Your task to perform on an android device: View the shopping cart on amazon. Search for usb-a to usb-b on amazon, select the first entry, add it to the cart, then select checkout. Image 0: 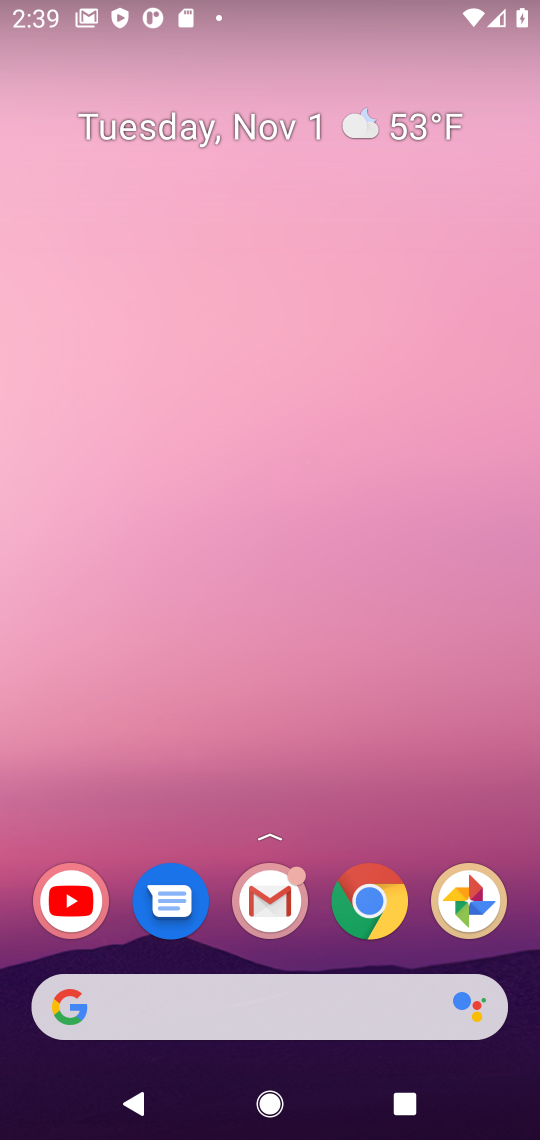
Step 0: click (374, 906)
Your task to perform on an android device: View the shopping cart on amazon. Search for usb-a to usb-b on amazon, select the first entry, add it to the cart, then select checkout. Image 1: 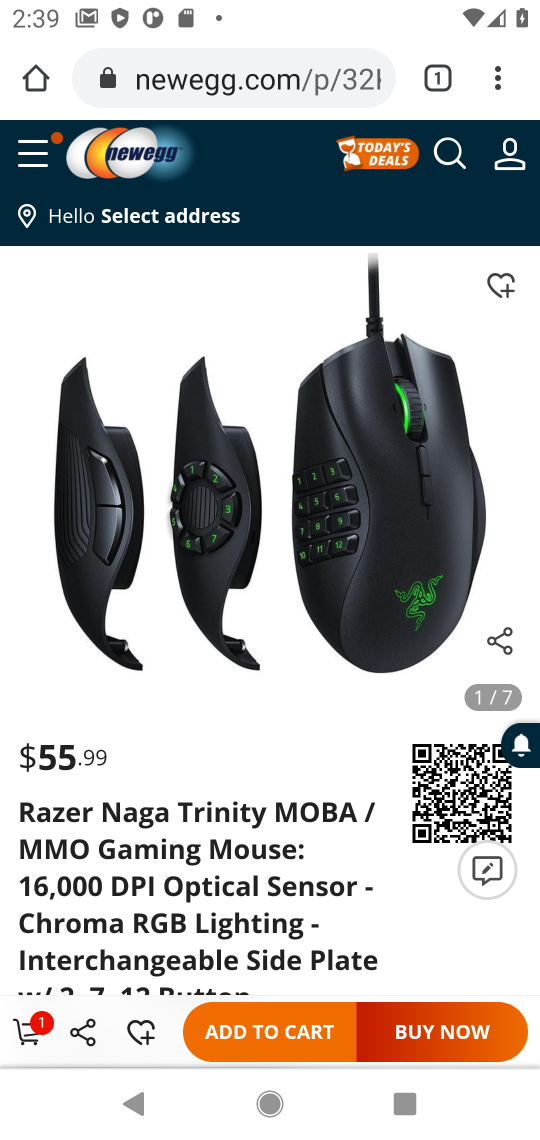
Step 1: click (291, 76)
Your task to perform on an android device: View the shopping cart on amazon. Search for usb-a to usb-b on amazon, select the first entry, add it to the cart, then select checkout. Image 2: 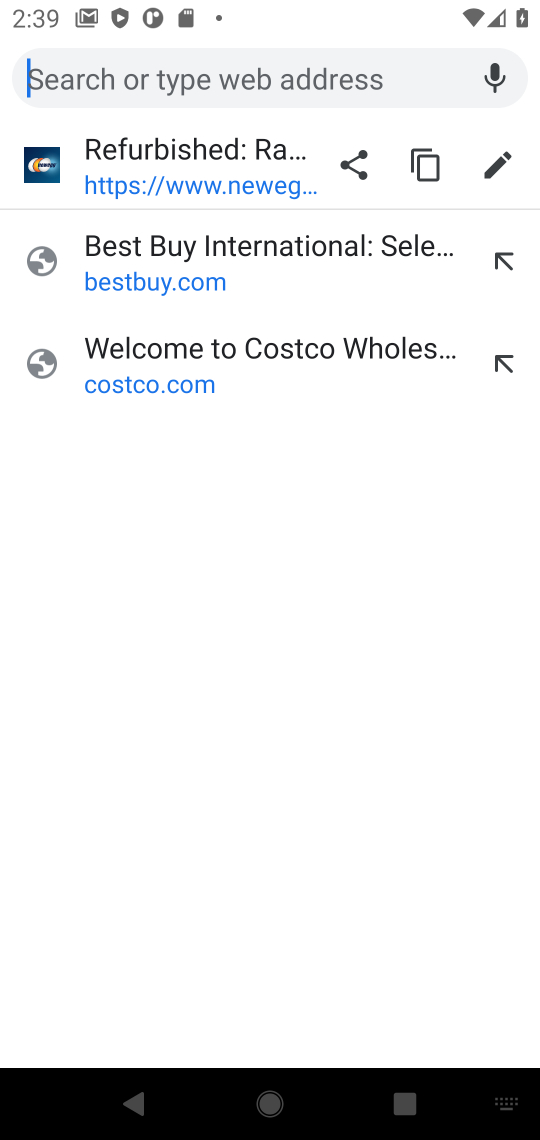
Step 2: type "amazon"
Your task to perform on an android device: View the shopping cart on amazon. Search for usb-a to usb-b on amazon, select the first entry, add it to the cart, then select checkout. Image 3: 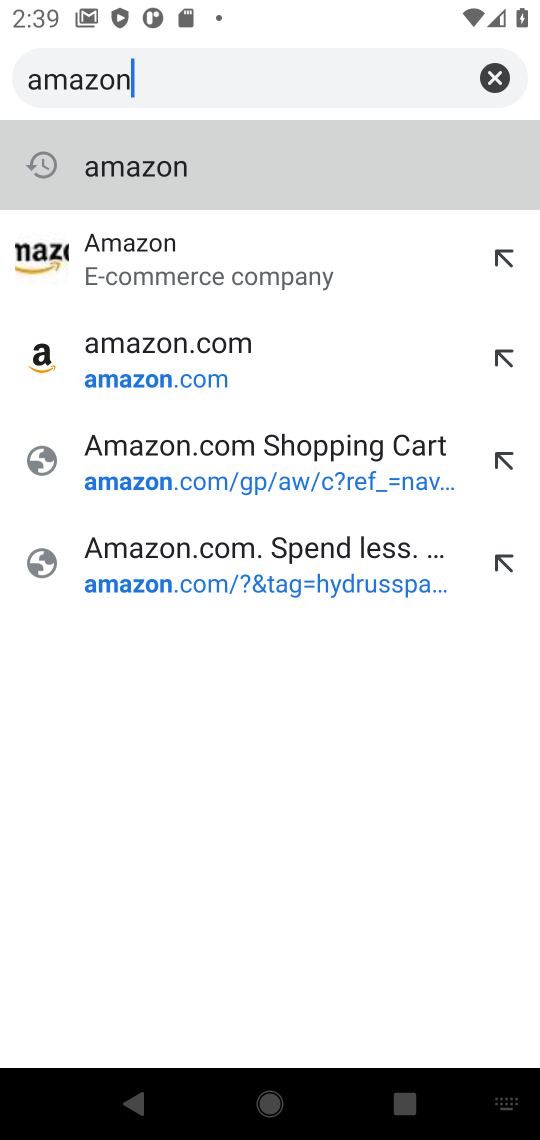
Step 3: click (134, 251)
Your task to perform on an android device: View the shopping cart on amazon. Search for usb-a to usb-b on amazon, select the first entry, add it to the cart, then select checkout. Image 4: 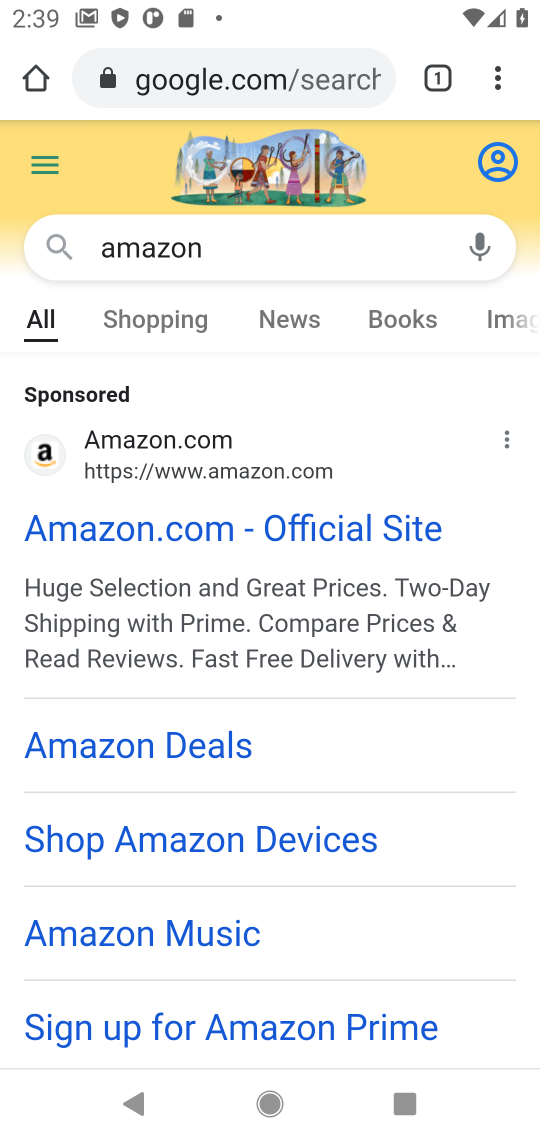
Step 4: click (145, 442)
Your task to perform on an android device: View the shopping cart on amazon. Search for usb-a to usb-b on amazon, select the first entry, add it to the cart, then select checkout. Image 5: 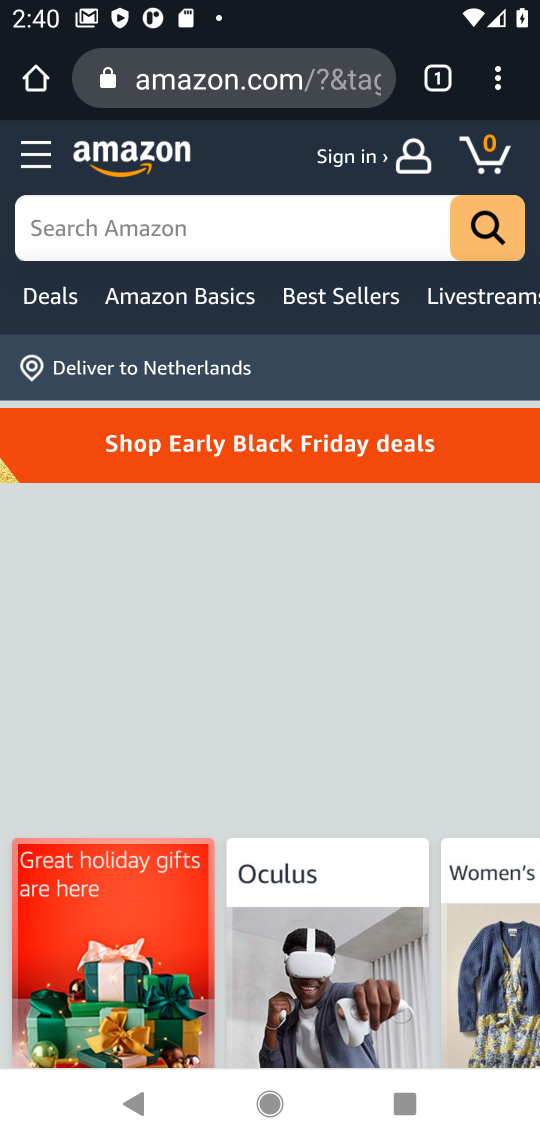
Step 5: click (327, 236)
Your task to perform on an android device: View the shopping cart on amazon. Search for usb-a to usb-b on amazon, select the first entry, add it to the cart, then select checkout. Image 6: 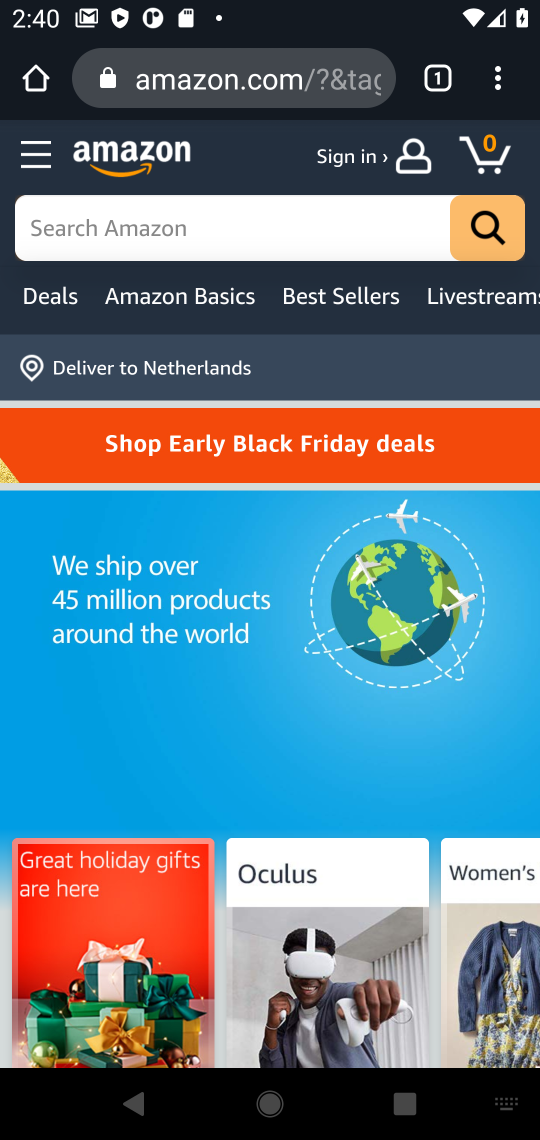
Step 6: type "usb-a to usb-b"
Your task to perform on an android device: View the shopping cart on amazon. Search for usb-a to usb-b on amazon, select the first entry, add it to the cart, then select checkout. Image 7: 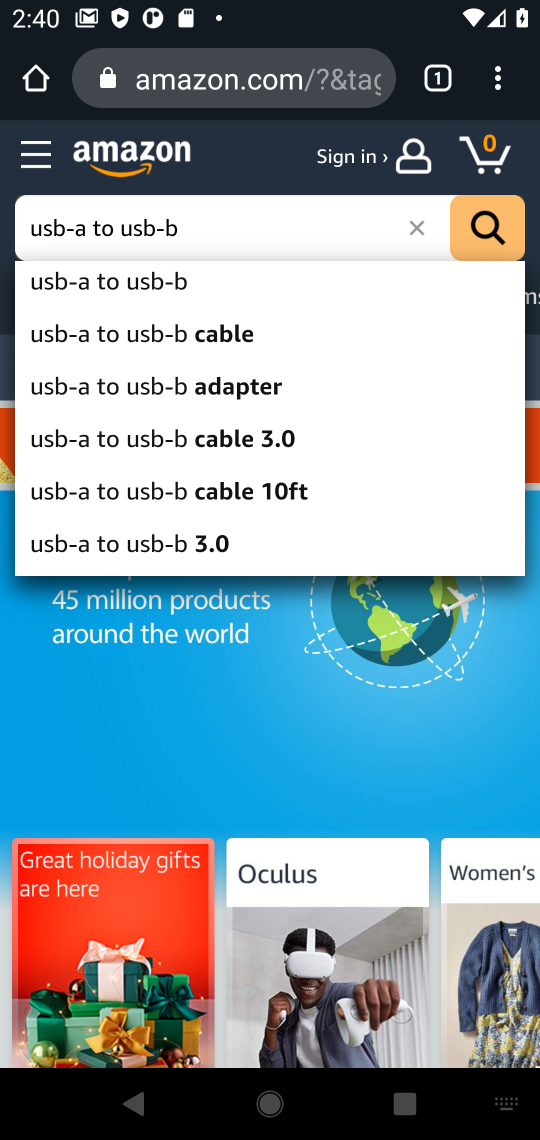
Step 7: click (163, 279)
Your task to perform on an android device: View the shopping cart on amazon. Search for usb-a to usb-b on amazon, select the first entry, add it to the cart, then select checkout. Image 8: 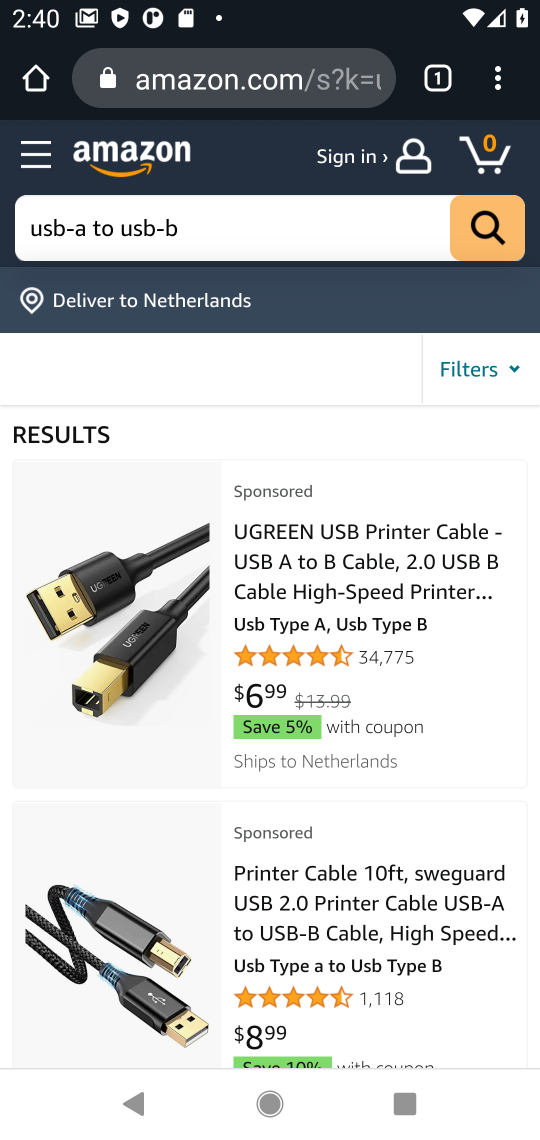
Step 8: click (255, 553)
Your task to perform on an android device: View the shopping cart on amazon. Search for usb-a to usb-b on amazon, select the first entry, add it to the cart, then select checkout. Image 9: 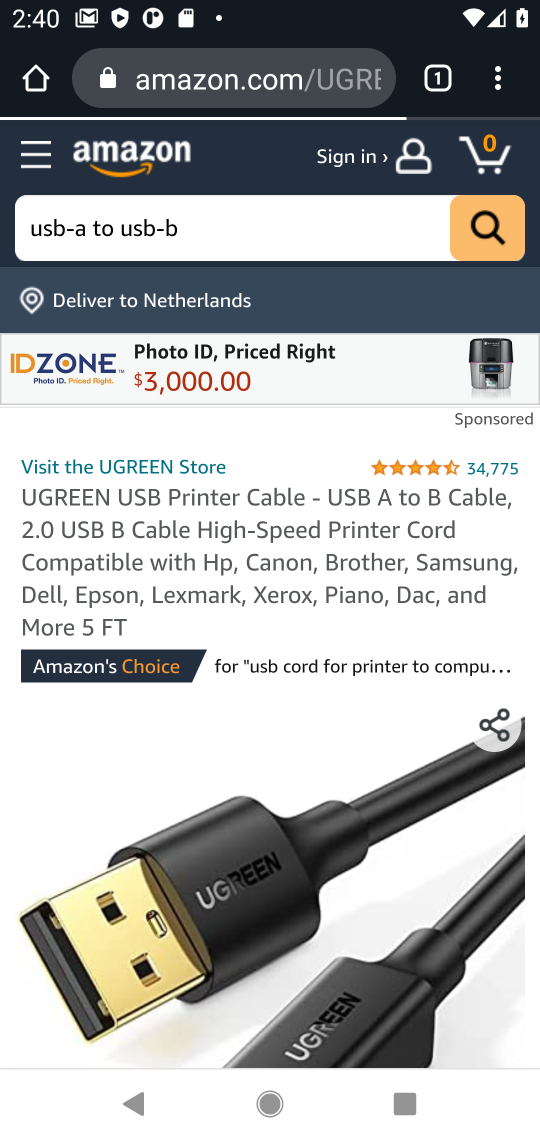
Step 9: drag from (376, 666) to (326, 435)
Your task to perform on an android device: View the shopping cart on amazon. Search for usb-a to usb-b on amazon, select the first entry, add it to the cart, then select checkout. Image 10: 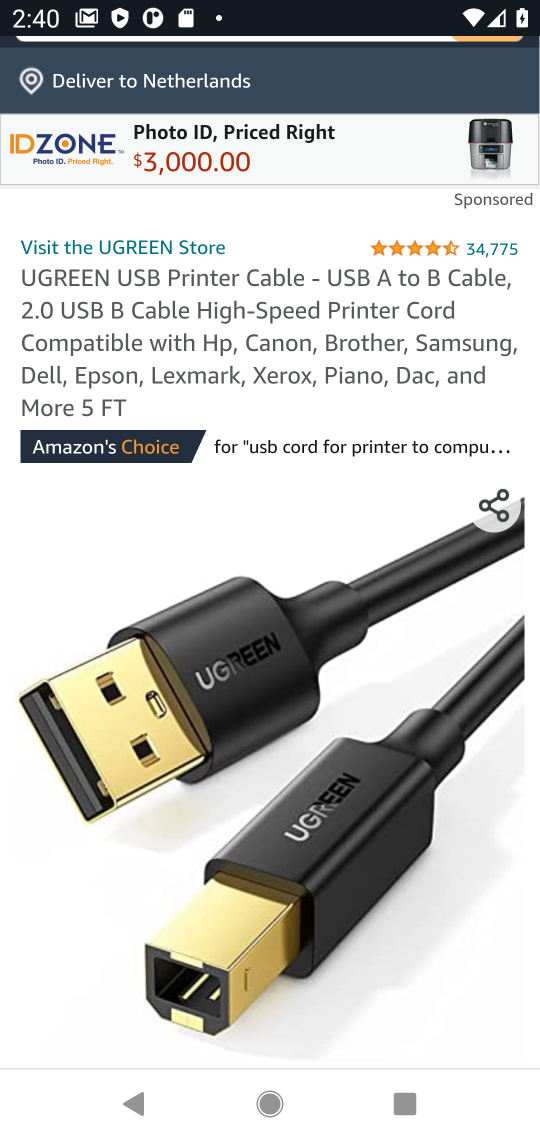
Step 10: drag from (318, 1003) to (138, 233)
Your task to perform on an android device: View the shopping cart on amazon. Search for usb-a to usb-b on amazon, select the first entry, add it to the cart, then select checkout. Image 11: 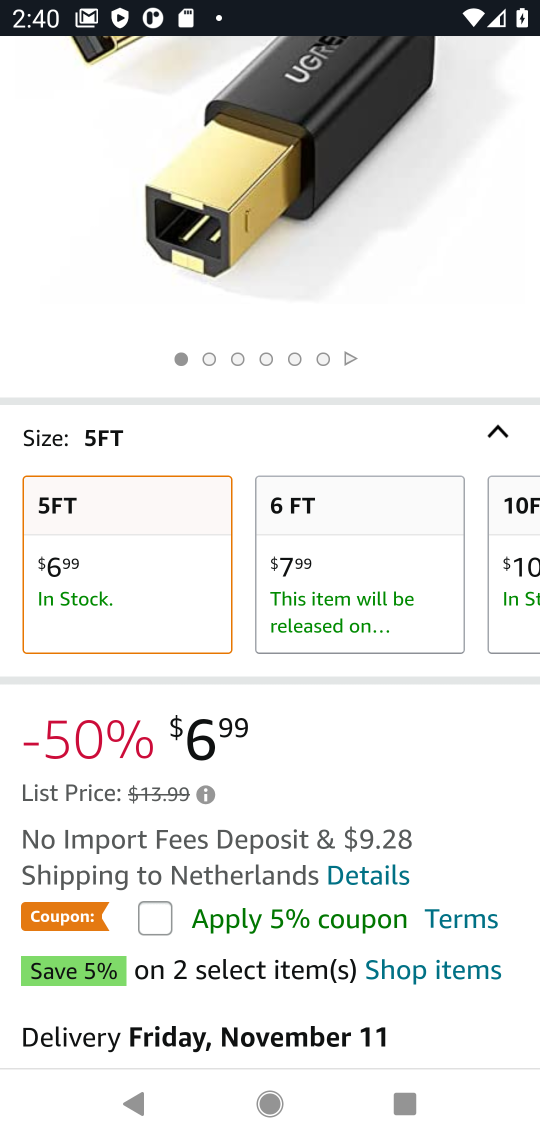
Step 11: drag from (449, 886) to (349, 510)
Your task to perform on an android device: View the shopping cart on amazon. Search for usb-a to usb-b on amazon, select the first entry, add it to the cart, then select checkout. Image 12: 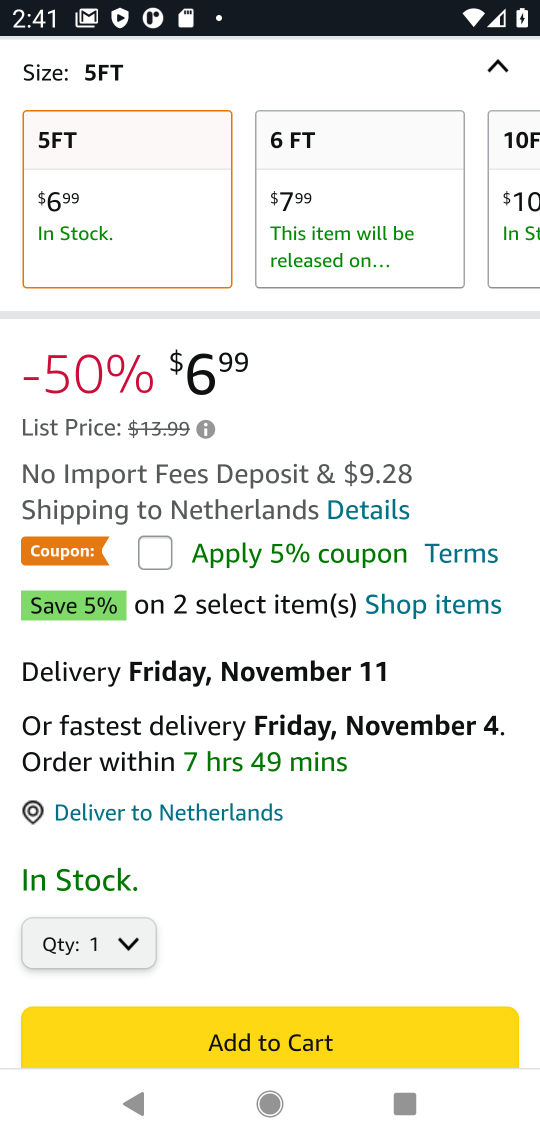
Step 12: drag from (310, 903) to (262, 712)
Your task to perform on an android device: View the shopping cart on amazon. Search for usb-a to usb-b on amazon, select the first entry, add it to the cart, then select checkout. Image 13: 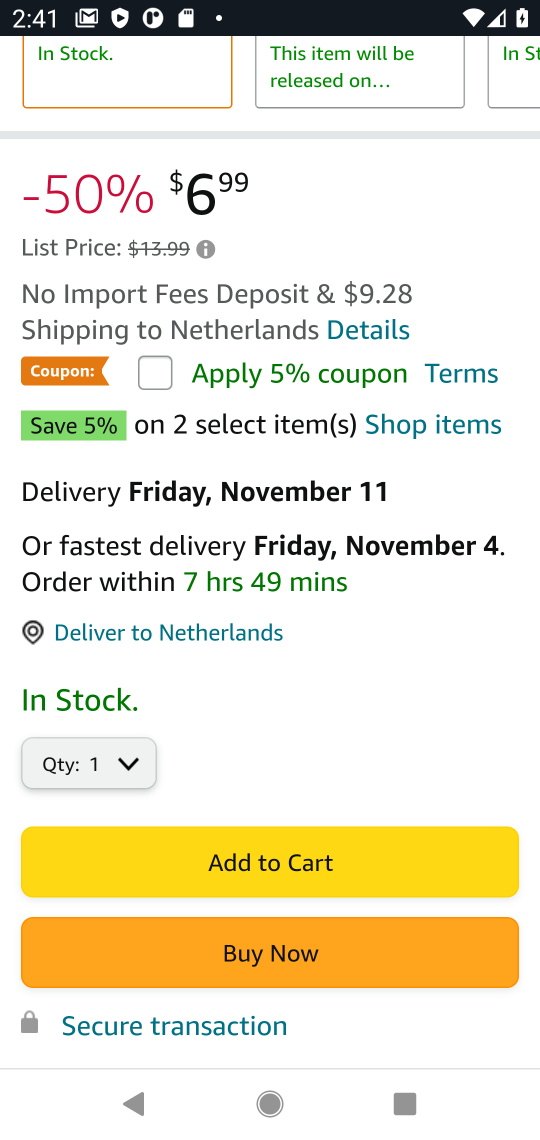
Step 13: click (272, 857)
Your task to perform on an android device: View the shopping cart on amazon. Search for usb-a to usb-b on amazon, select the first entry, add it to the cart, then select checkout. Image 14: 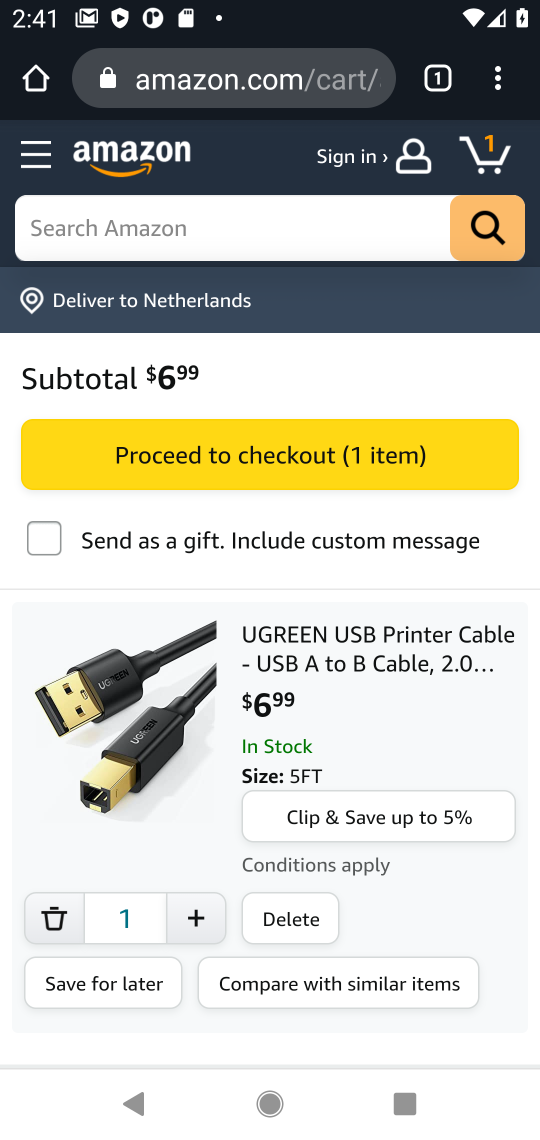
Step 14: click (342, 470)
Your task to perform on an android device: View the shopping cart on amazon. Search for usb-a to usb-b on amazon, select the first entry, add it to the cart, then select checkout. Image 15: 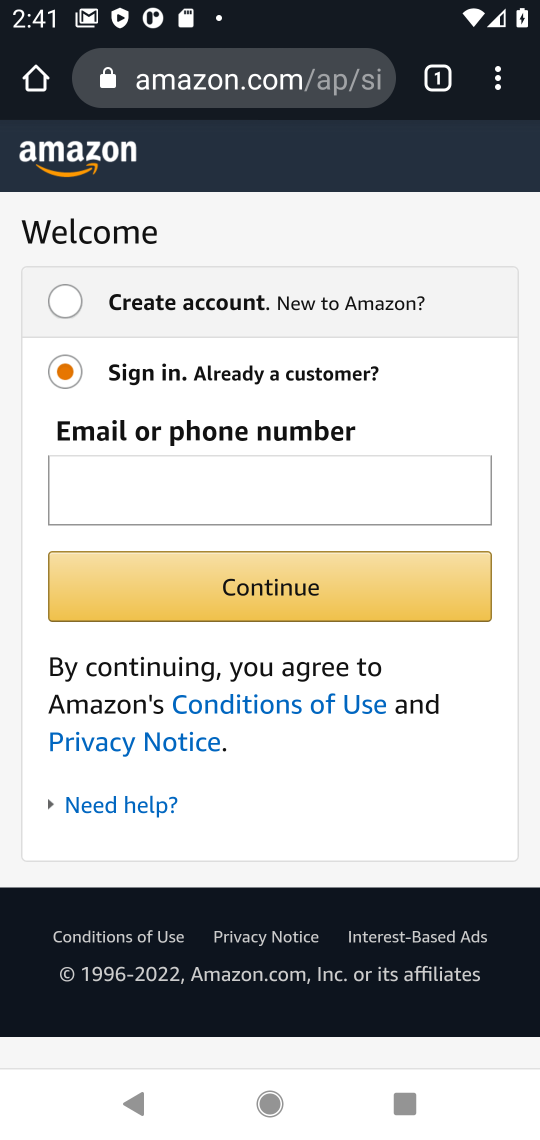
Step 15: task complete